Your task to perform on an android device: open chrome privacy settings Image 0: 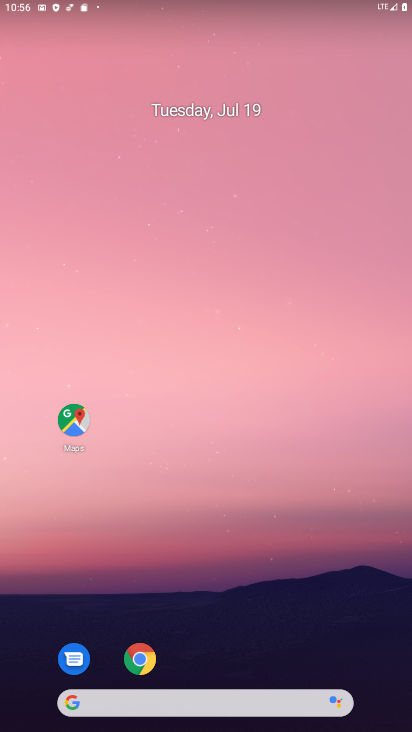
Step 0: click (145, 679)
Your task to perform on an android device: open chrome privacy settings Image 1: 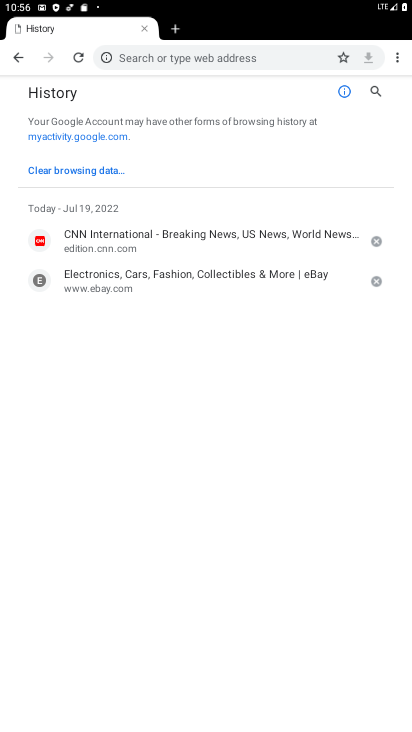
Step 1: click (402, 57)
Your task to perform on an android device: open chrome privacy settings Image 2: 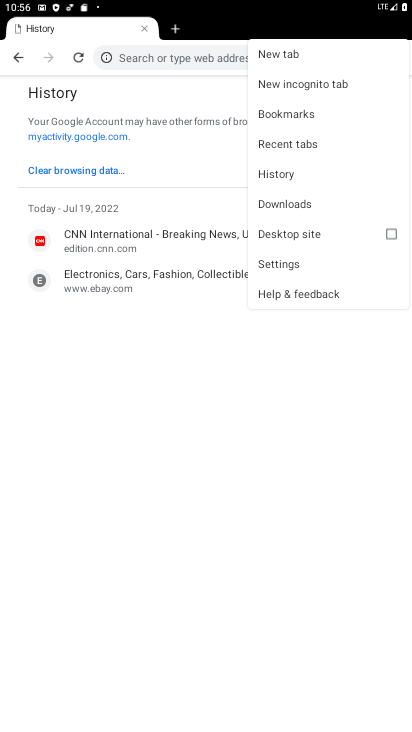
Step 2: click (294, 262)
Your task to perform on an android device: open chrome privacy settings Image 3: 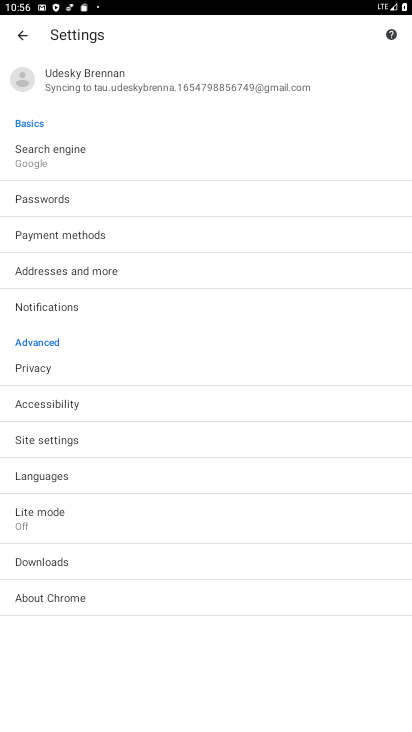
Step 3: task complete